Your task to perform on an android device: Show me the alarms in the clock app Image 0: 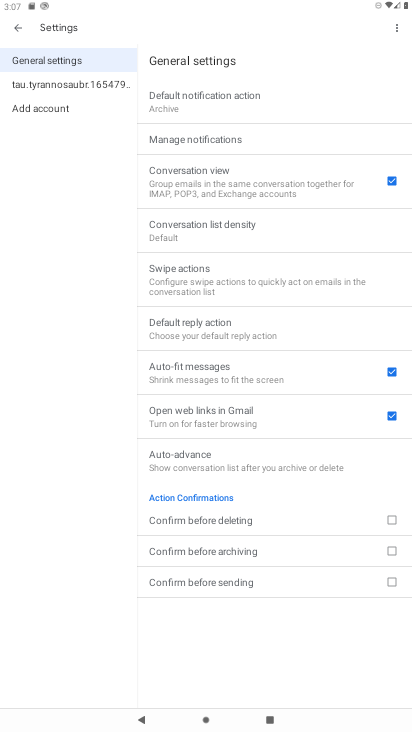
Step 0: press home button
Your task to perform on an android device: Show me the alarms in the clock app Image 1: 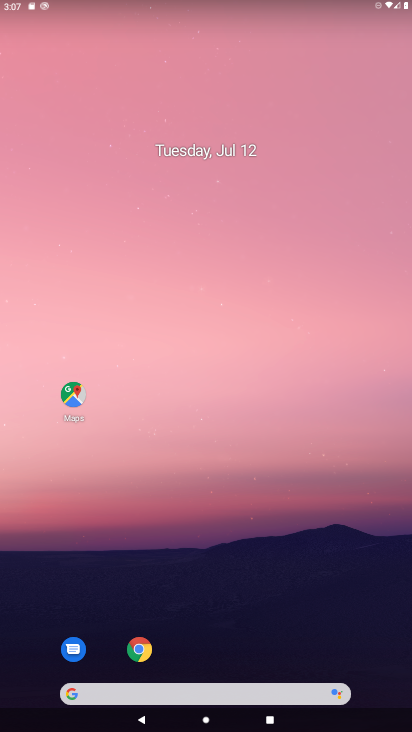
Step 1: drag from (288, 628) to (288, 268)
Your task to perform on an android device: Show me the alarms in the clock app Image 2: 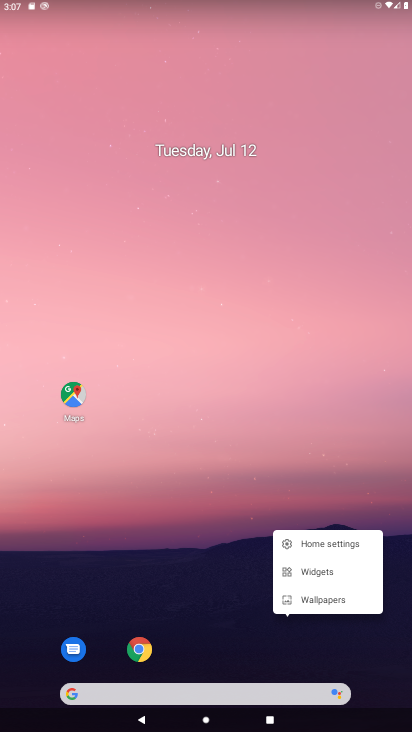
Step 2: click (257, 365)
Your task to perform on an android device: Show me the alarms in the clock app Image 3: 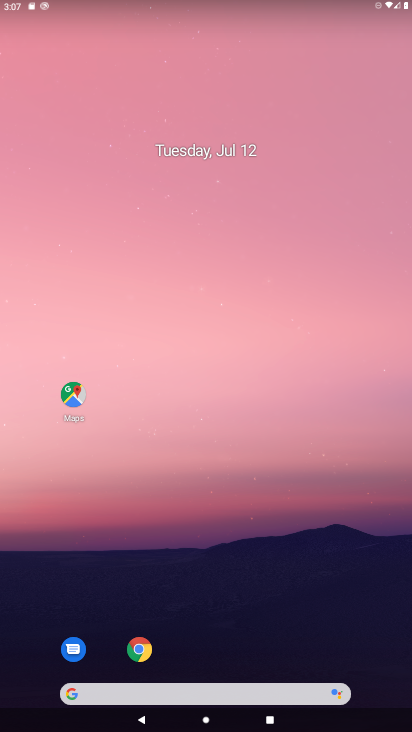
Step 3: drag from (242, 645) to (170, 26)
Your task to perform on an android device: Show me the alarms in the clock app Image 4: 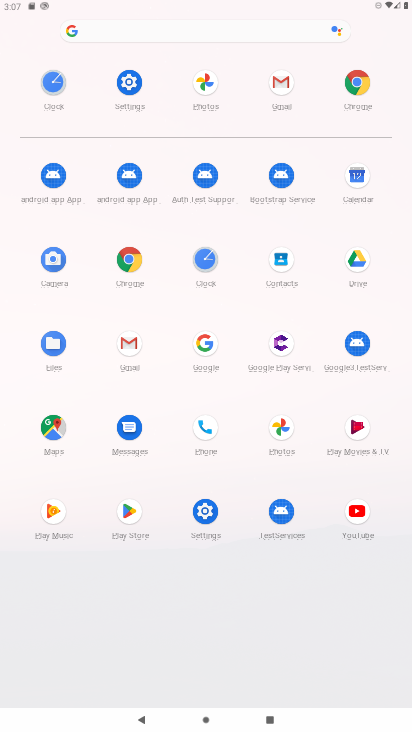
Step 4: click (52, 96)
Your task to perform on an android device: Show me the alarms in the clock app Image 5: 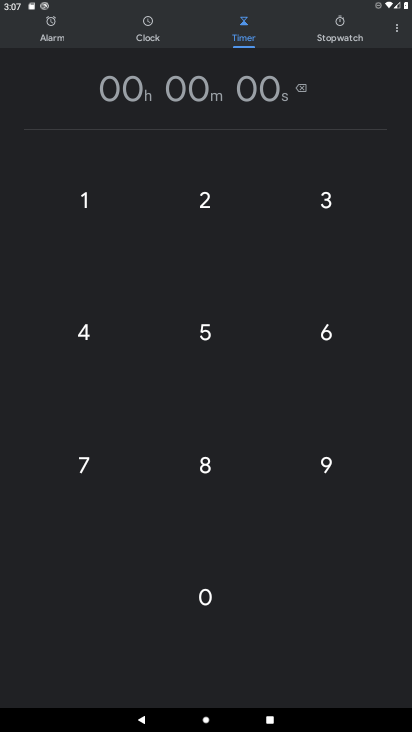
Step 5: click (402, 28)
Your task to perform on an android device: Show me the alarms in the clock app Image 6: 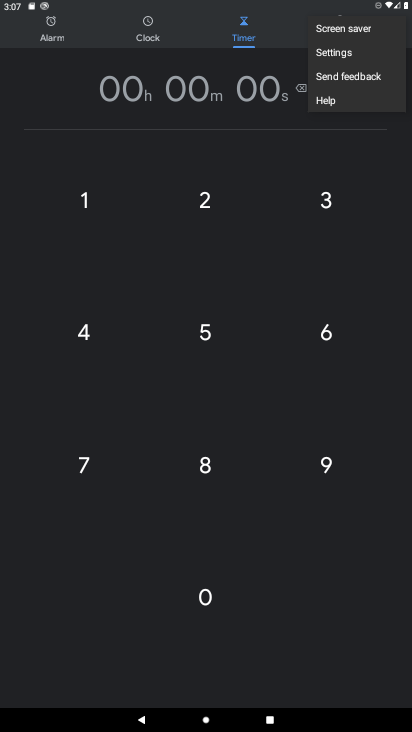
Step 6: click (326, 60)
Your task to perform on an android device: Show me the alarms in the clock app Image 7: 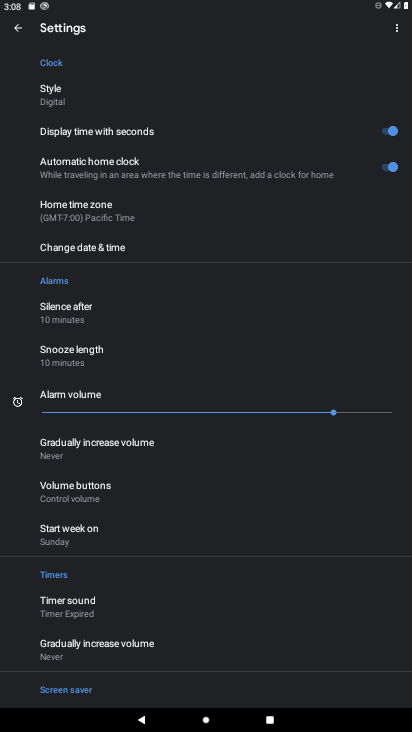
Step 7: click (20, 34)
Your task to perform on an android device: Show me the alarms in the clock app Image 8: 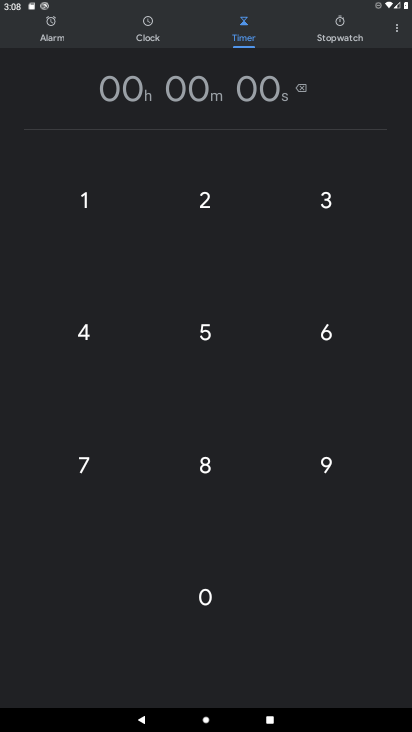
Step 8: click (54, 45)
Your task to perform on an android device: Show me the alarms in the clock app Image 9: 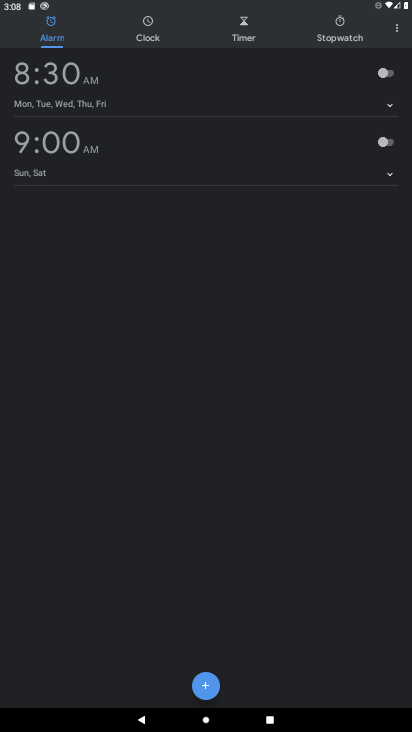
Step 9: task complete